Your task to perform on an android device: toggle notification dots Image 0: 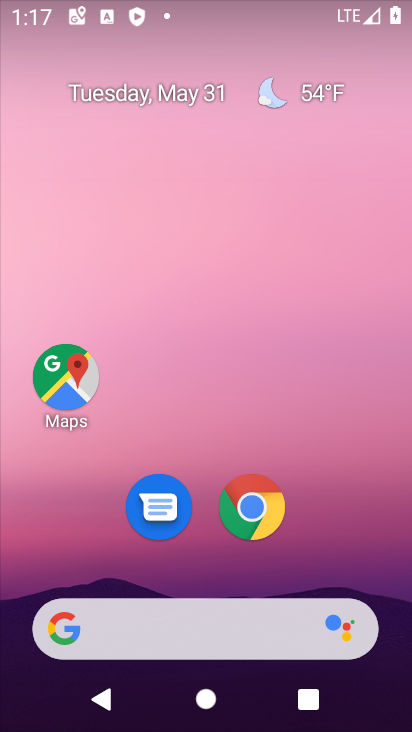
Step 0: drag from (400, 611) to (271, 32)
Your task to perform on an android device: toggle notification dots Image 1: 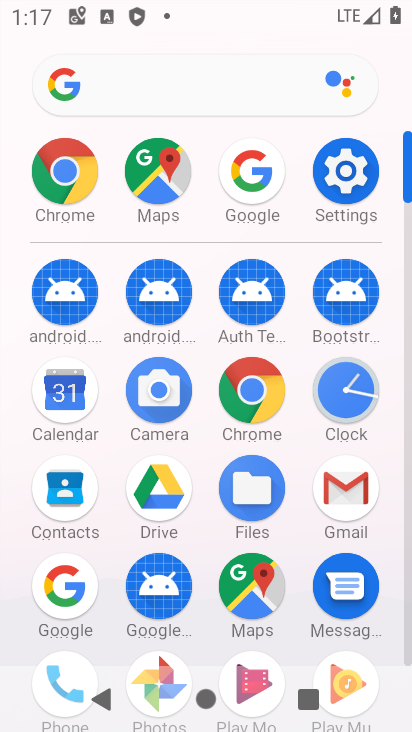
Step 1: click (343, 161)
Your task to perform on an android device: toggle notification dots Image 2: 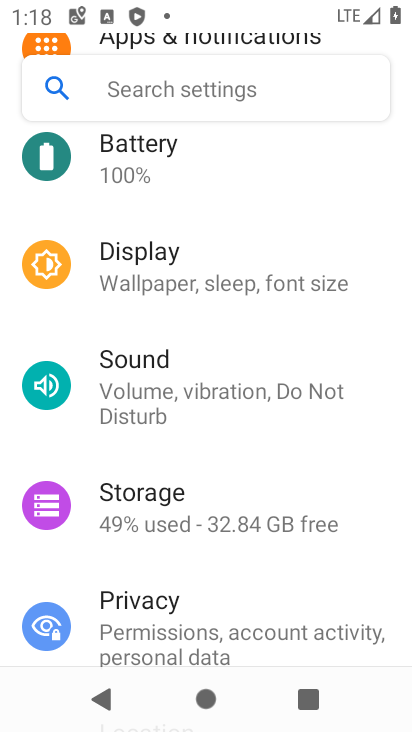
Step 2: drag from (339, 161) to (329, 456)
Your task to perform on an android device: toggle notification dots Image 3: 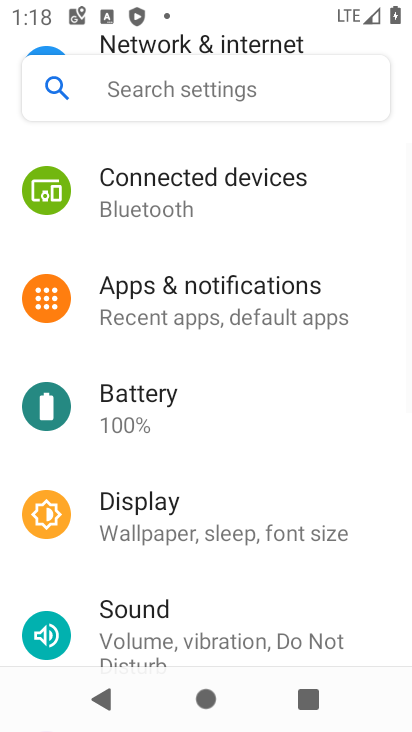
Step 3: click (277, 281)
Your task to perform on an android device: toggle notification dots Image 4: 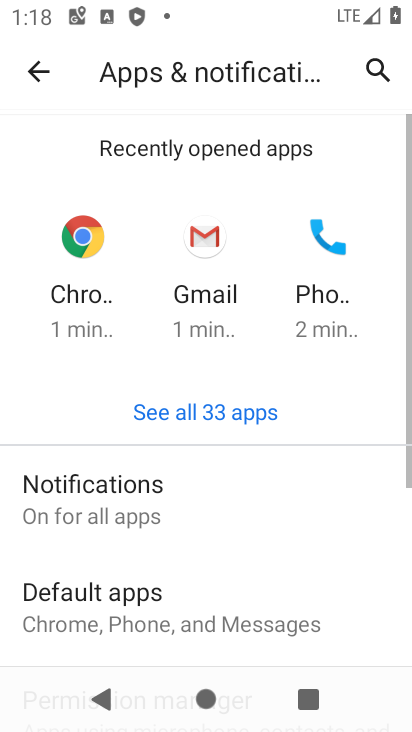
Step 4: click (127, 486)
Your task to perform on an android device: toggle notification dots Image 5: 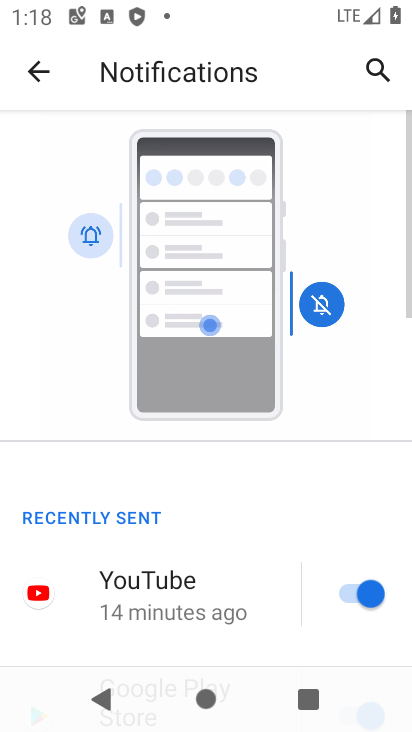
Step 5: drag from (127, 613) to (238, 75)
Your task to perform on an android device: toggle notification dots Image 6: 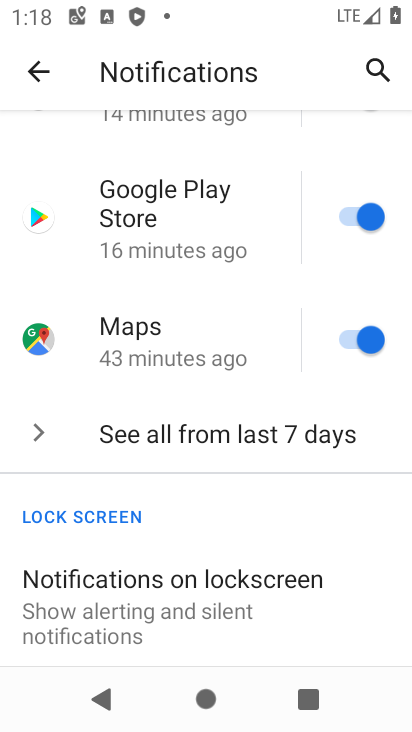
Step 6: drag from (177, 599) to (192, 160)
Your task to perform on an android device: toggle notification dots Image 7: 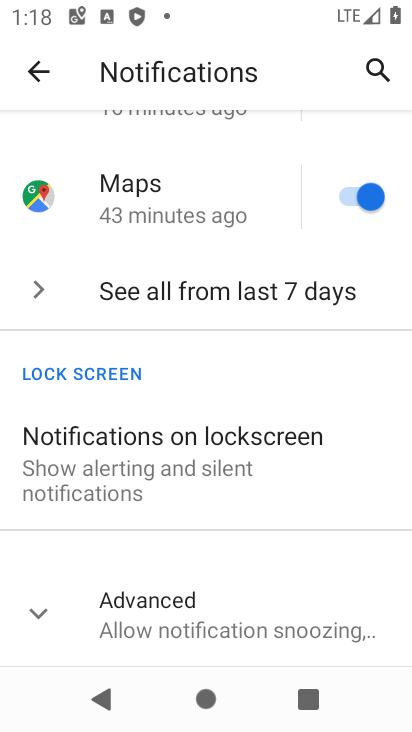
Step 7: click (132, 599)
Your task to perform on an android device: toggle notification dots Image 8: 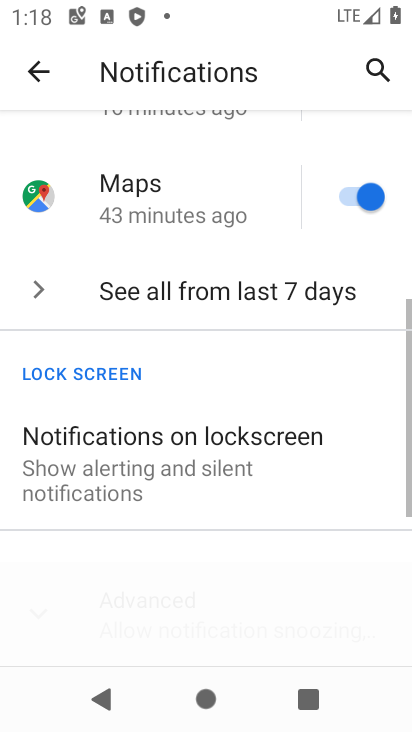
Step 8: drag from (127, 629) to (192, 185)
Your task to perform on an android device: toggle notification dots Image 9: 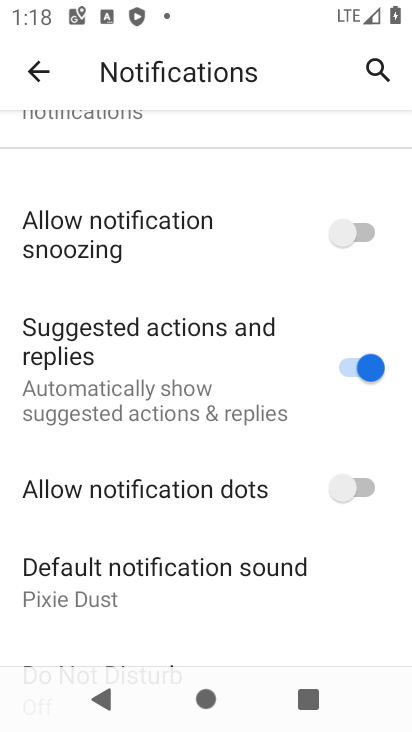
Step 9: click (280, 505)
Your task to perform on an android device: toggle notification dots Image 10: 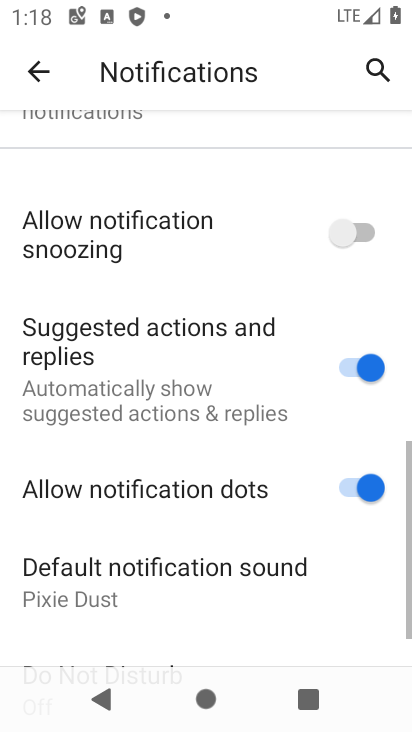
Step 10: task complete